Your task to perform on an android device: Open Amazon Image 0: 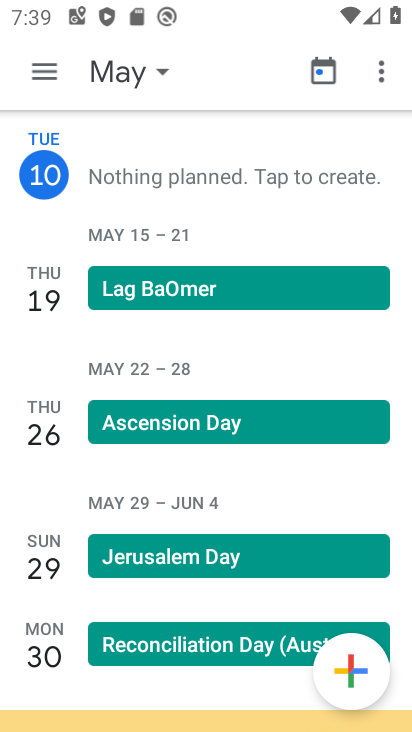
Step 0: press home button
Your task to perform on an android device: Open Amazon Image 1: 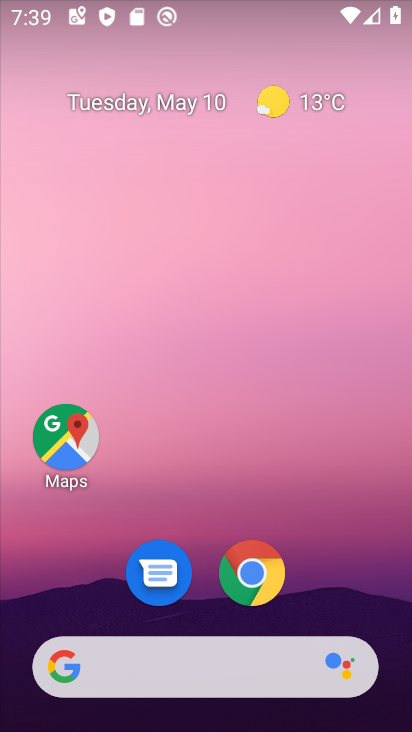
Step 1: click (248, 568)
Your task to perform on an android device: Open Amazon Image 2: 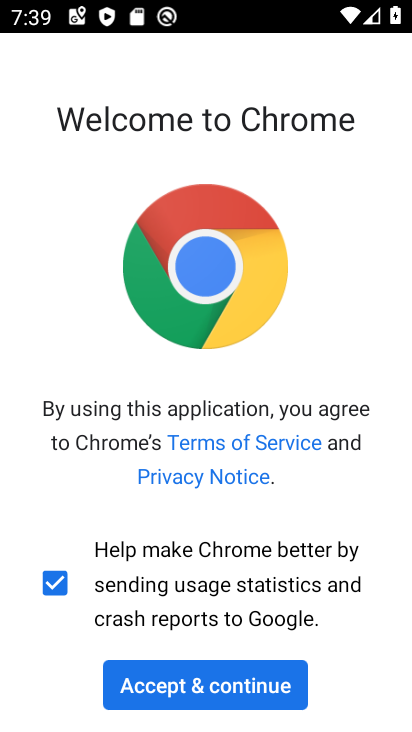
Step 2: click (176, 684)
Your task to perform on an android device: Open Amazon Image 3: 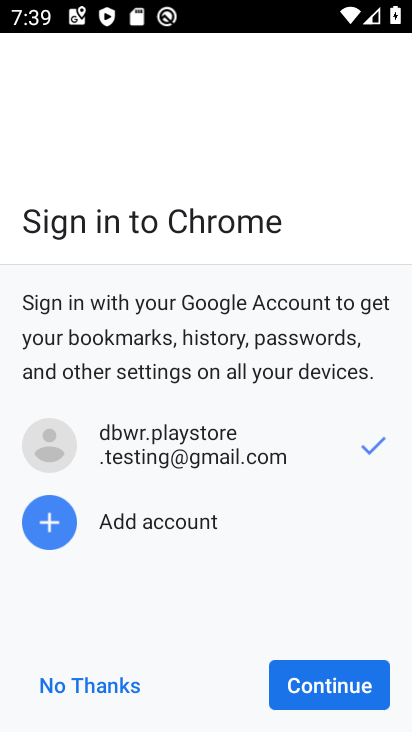
Step 3: click (79, 697)
Your task to perform on an android device: Open Amazon Image 4: 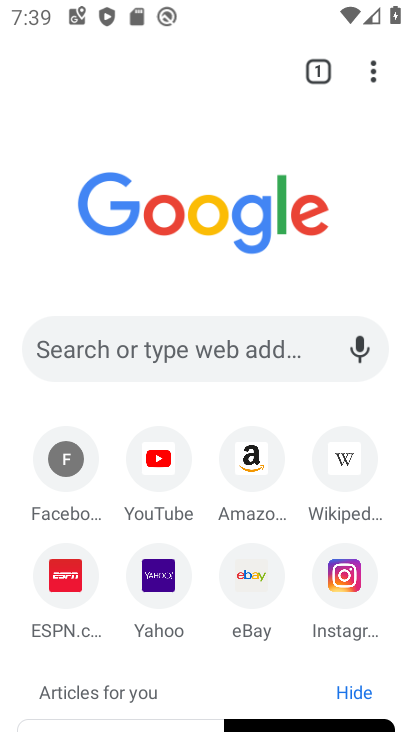
Step 4: click (246, 461)
Your task to perform on an android device: Open Amazon Image 5: 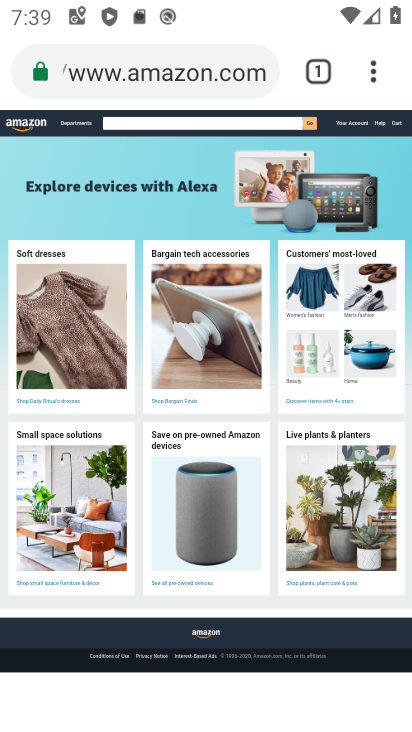
Step 5: task complete